Your task to perform on an android device: Open Wikipedia Image 0: 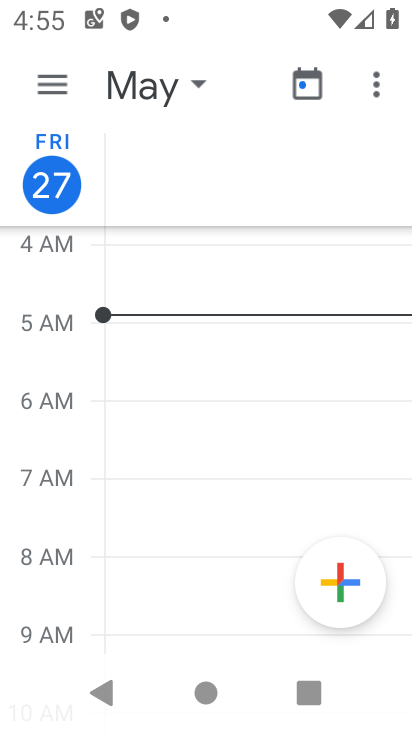
Step 0: press home button
Your task to perform on an android device: Open Wikipedia Image 1: 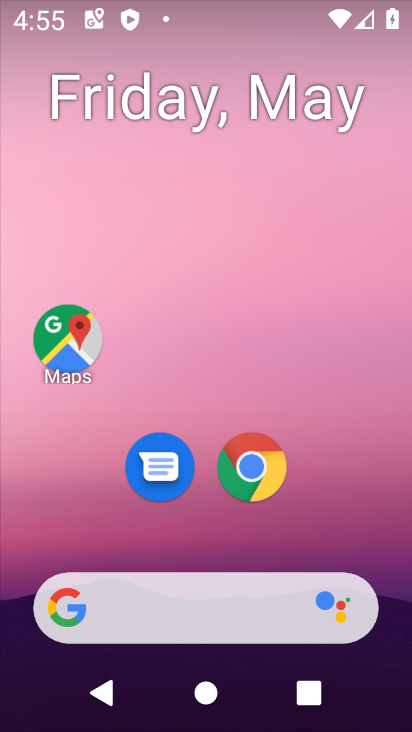
Step 1: click (250, 468)
Your task to perform on an android device: Open Wikipedia Image 2: 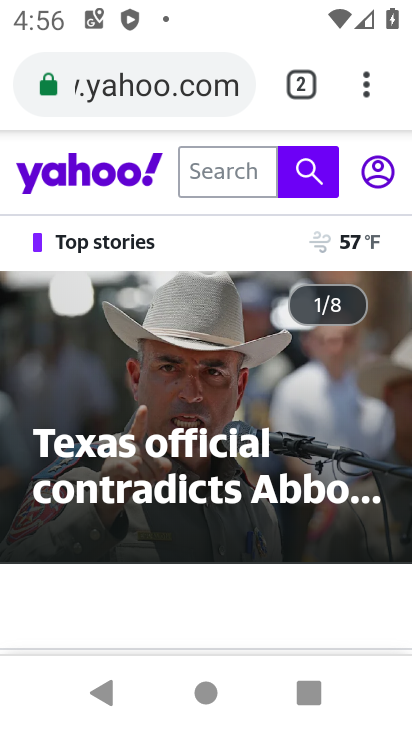
Step 2: click (304, 76)
Your task to perform on an android device: Open Wikipedia Image 3: 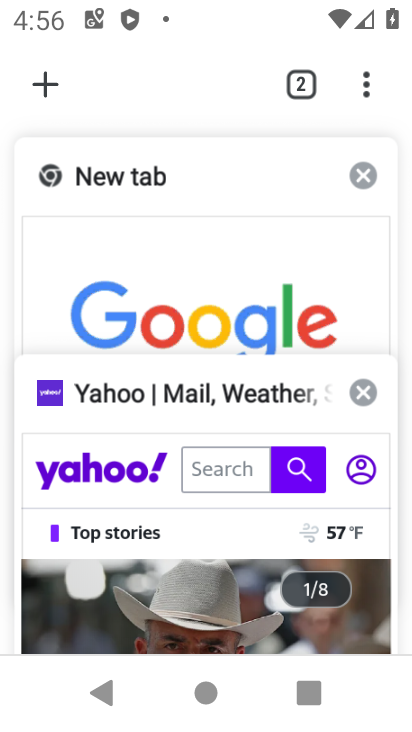
Step 3: click (162, 180)
Your task to perform on an android device: Open Wikipedia Image 4: 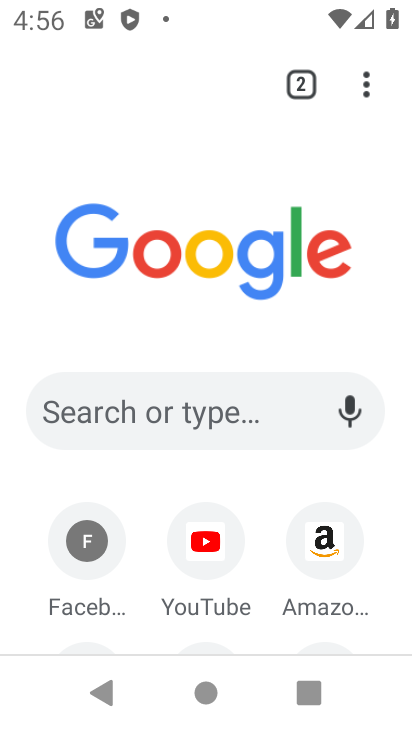
Step 4: drag from (279, 522) to (303, 279)
Your task to perform on an android device: Open Wikipedia Image 5: 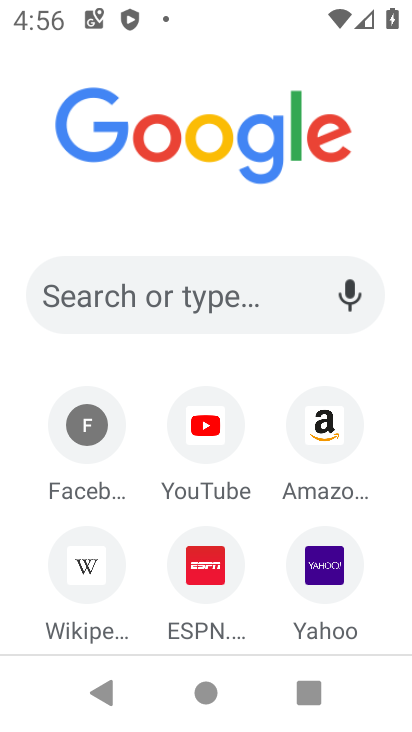
Step 5: click (75, 573)
Your task to perform on an android device: Open Wikipedia Image 6: 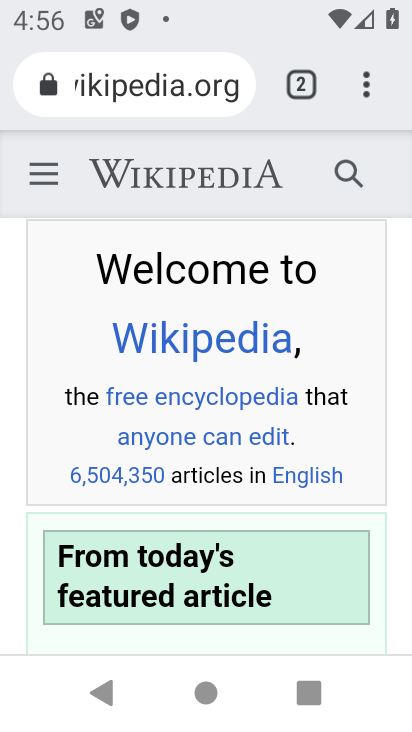
Step 6: task complete